Your task to perform on an android device: Open Google Chrome and open the bookmarks view Image 0: 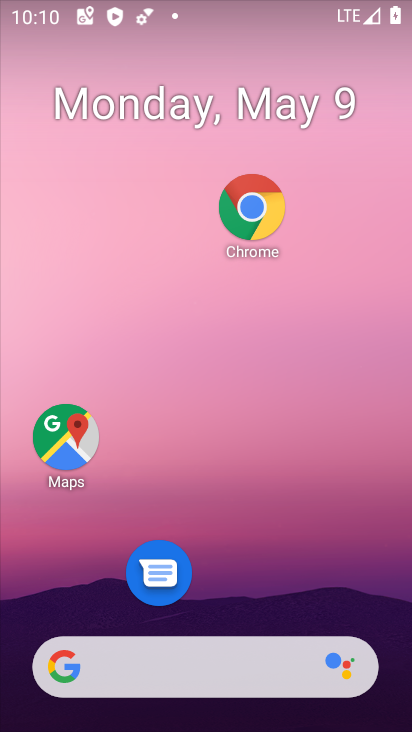
Step 0: drag from (198, 682) to (297, 264)
Your task to perform on an android device: Open Google Chrome and open the bookmarks view Image 1: 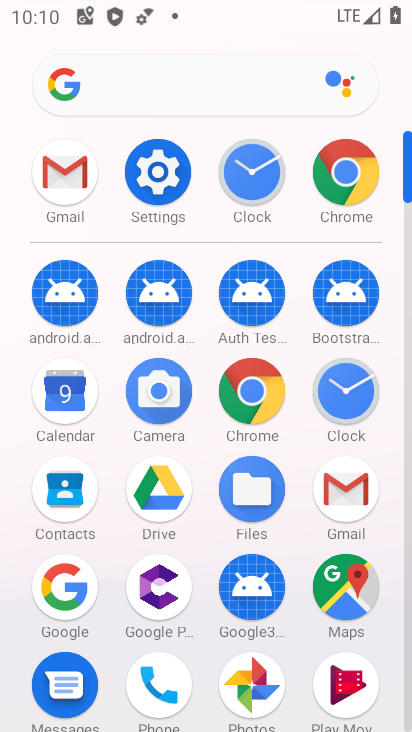
Step 1: click (352, 193)
Your task to perform on an android device: Open Google Chrome and open the bookmarks view Image 2: 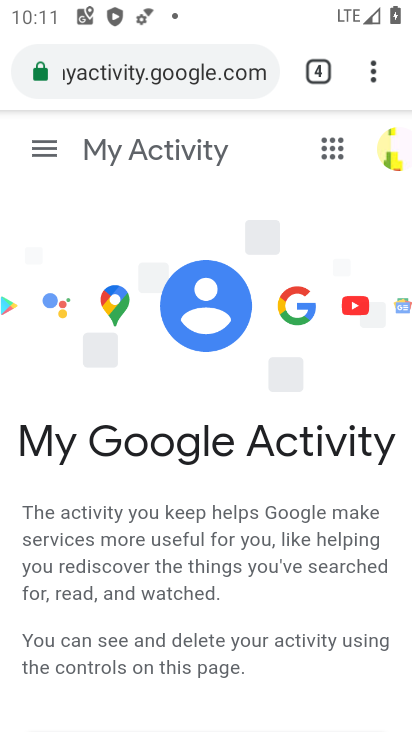
Step 2: click (376, 78)
Your task to perform on an android device: Open Google Chrome and open the bookmarks view Image 3: 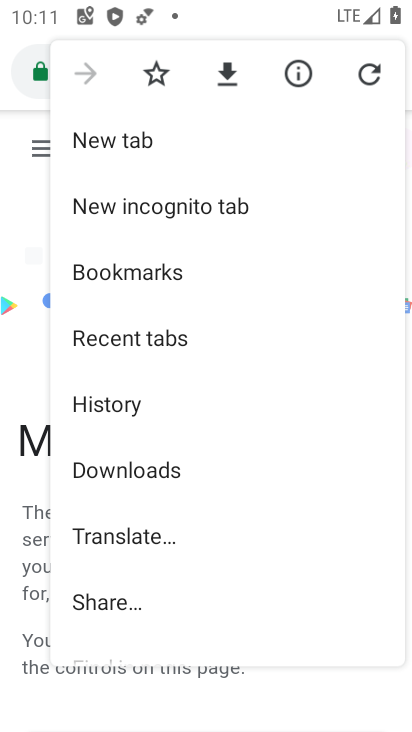
Step 3: click (175, 280)
Your task to perform on an android device: Open Google Chrome and open the bookmarks view Image 4: 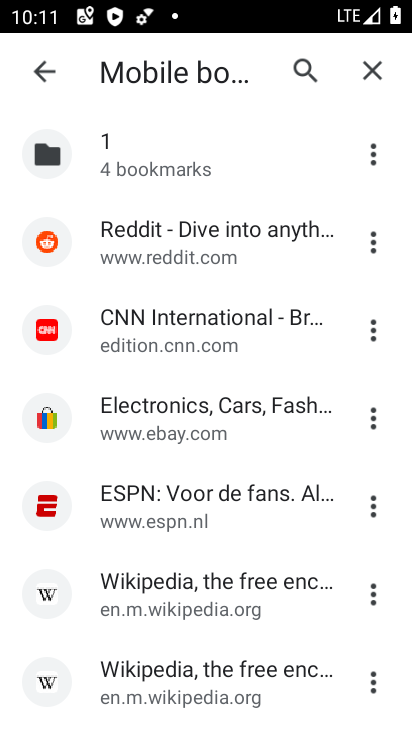
Step 4: task complete